Your task to perform on an android device: toggle javascript in the chrome app Image 0: 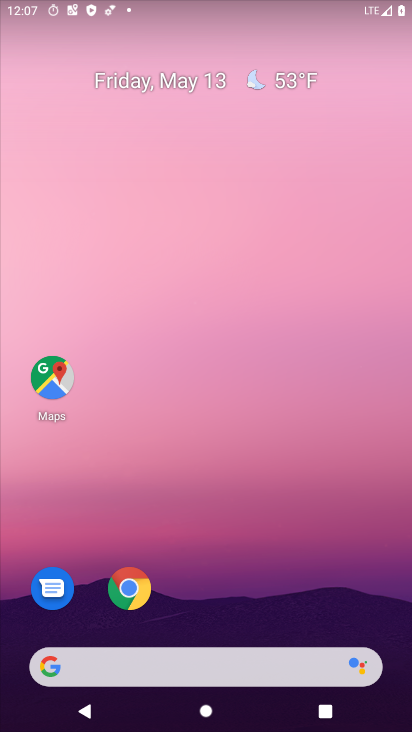
Step 0: click (133, 591)
Your task to perform on an android device: toggle javascript in the chrome app Image 1: 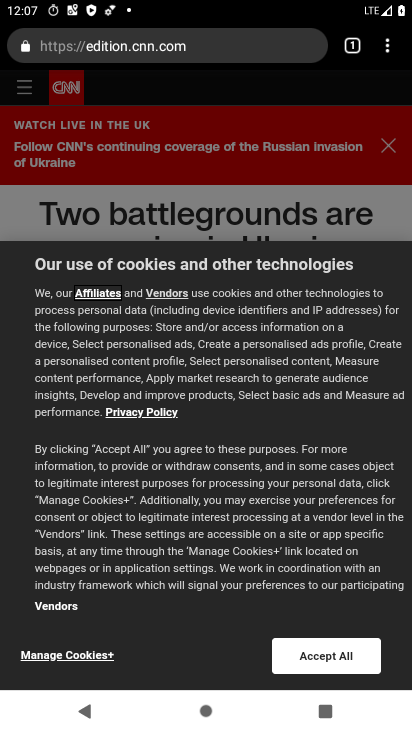
Step 1: drag from (390, 47) to (236, 509)
Your task to perform on an android device: toggle javascript in the chrome app Image 2: 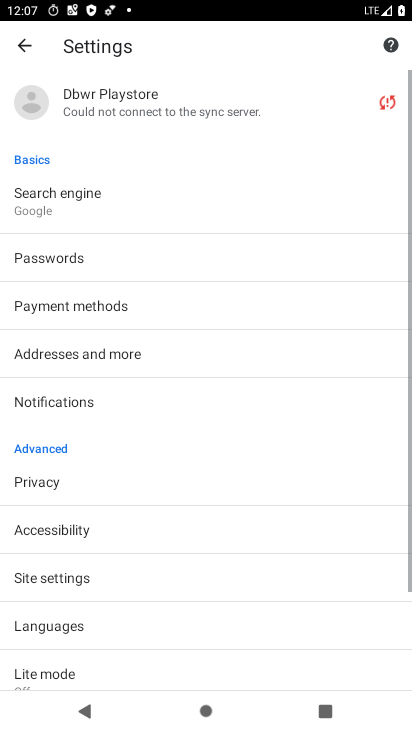
Step 2: drag from (183, 601) to (284, 213)
Your task to perform on an android device: toggle javascript in the chrome app Image 3: 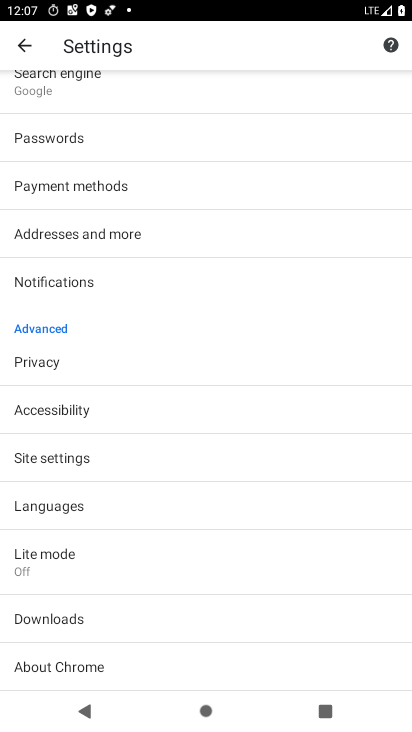
Step 3: click (113, 460)
Your task to perform on an android device: toggle javascript in the chrome app Image 4: 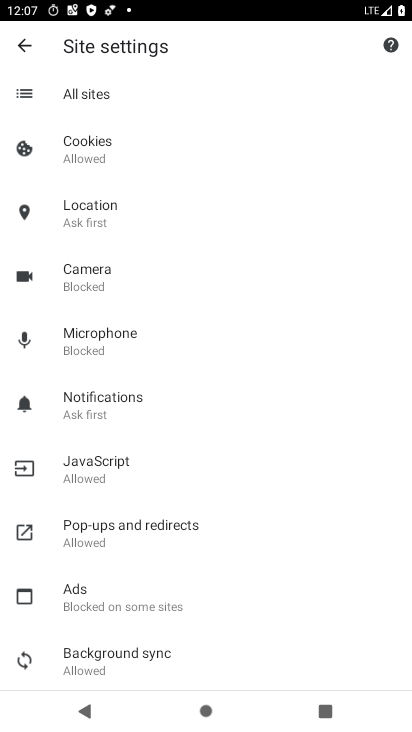
Step 4: click (89, 473)
Your task to perform on an android device: toggle javascript in the chrome app Image 5: 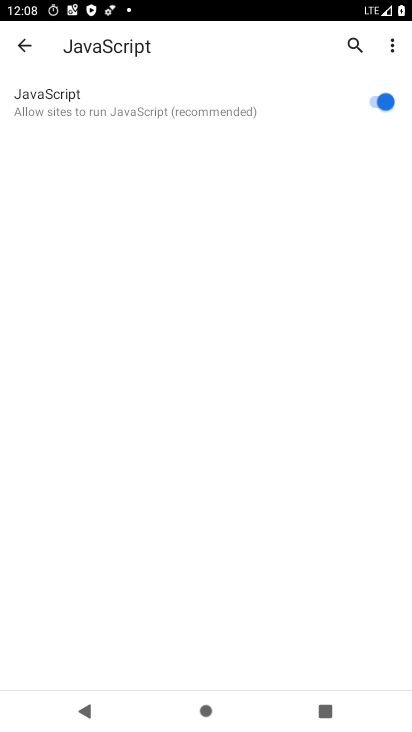
Step 5: click (373, 99)
Your task to perform on an android device: toggle javascript in the chrome app Image 6: 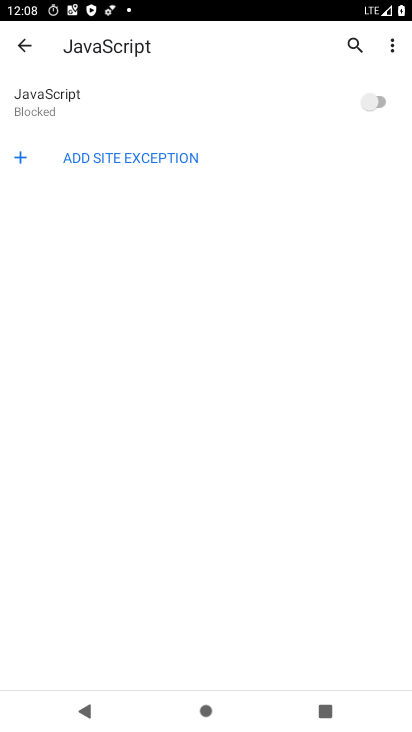
Step 6: task complete